Your task to perform on an android device: Open settings on Google Maps Image 0: 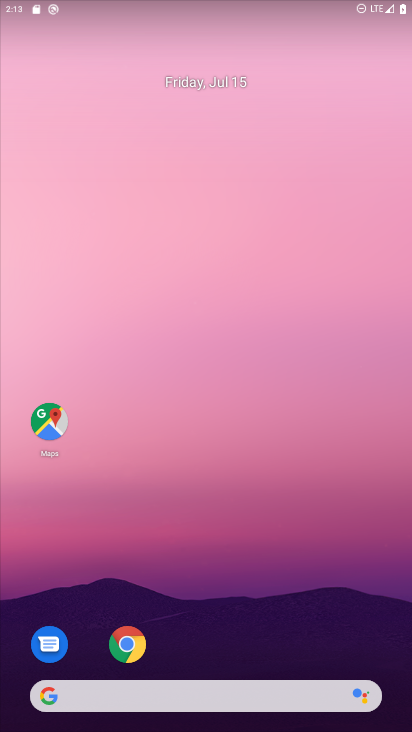
Step 0: press home button
Your task to perform on an android device: Open settings on Google Maps Image 1: 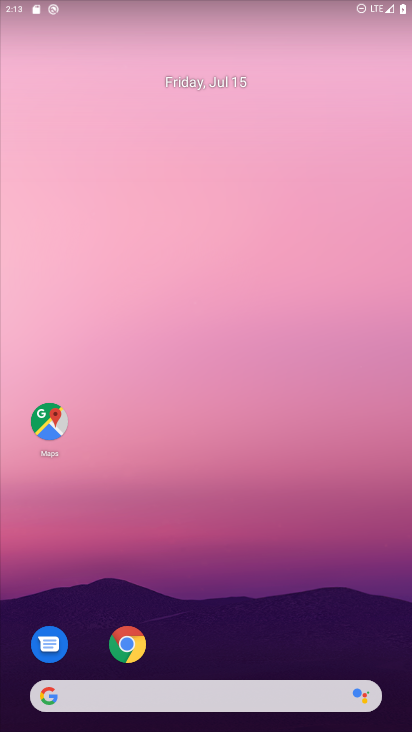
Step 1: drag from (24, 550) to (201, 110)
Your task to perform on an android device: Open settings on Google Maps Image 2: 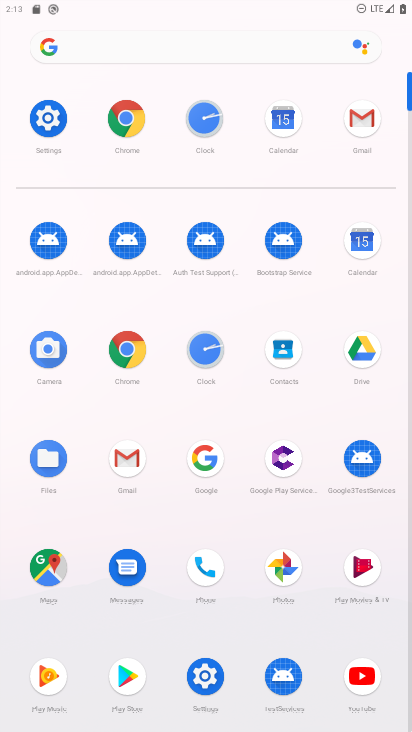
Step 2: click (54, 576)
Your task to perform on an android device: Open settings on Google Maps Image 3: 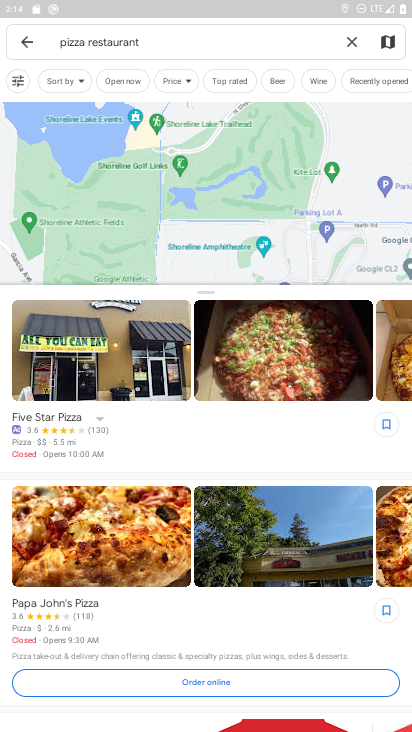
Step 3: click (353, 42)
Your task to perform on an android device: Open settings on Google Maps Image 4: 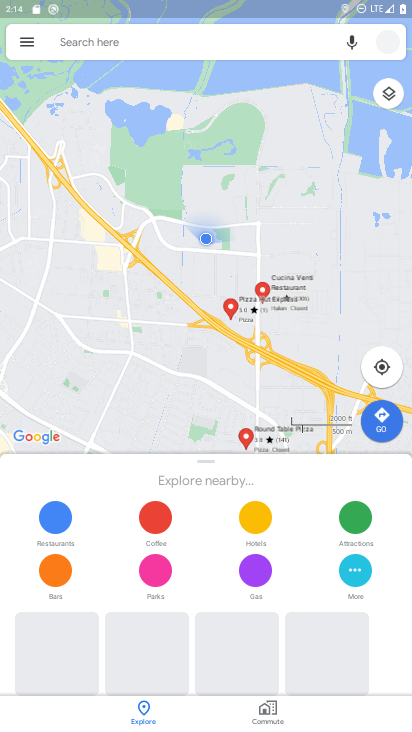
Step 4: click (21, 49)
Your task to perform on an android device: Open settings on Google Maps Image 5: 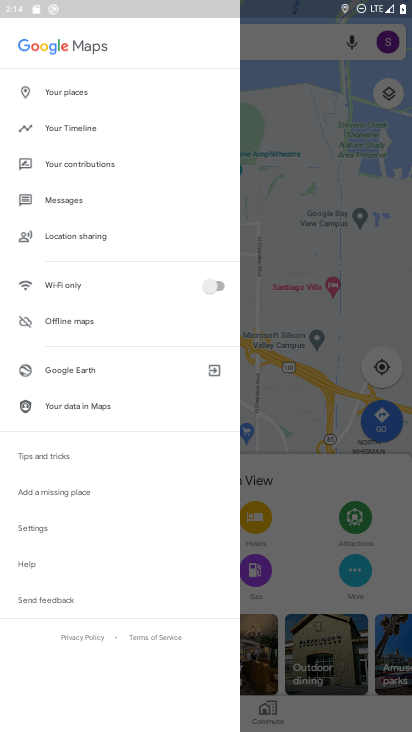
Step 5: click (28, 532)
Your task to perform on an android device: Open settings on Google Maps Image 6: 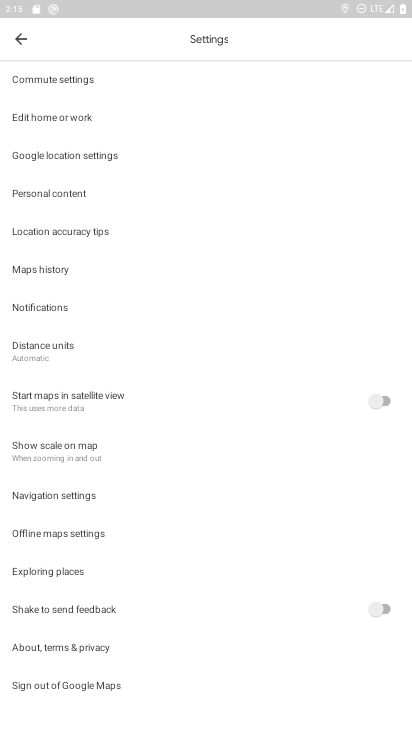
Step 6: task complete